Your task to perform on an android device: Open Maps and search for coffee Image 0: 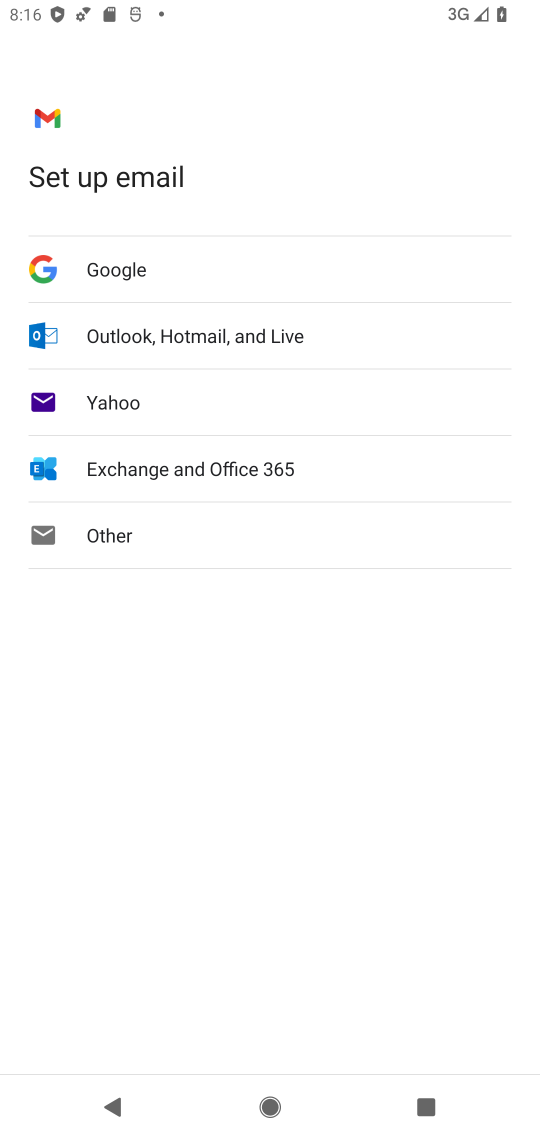
Step 0: press home button
Your task to perform on an android device: Open Maps and search for coffee Image 1: 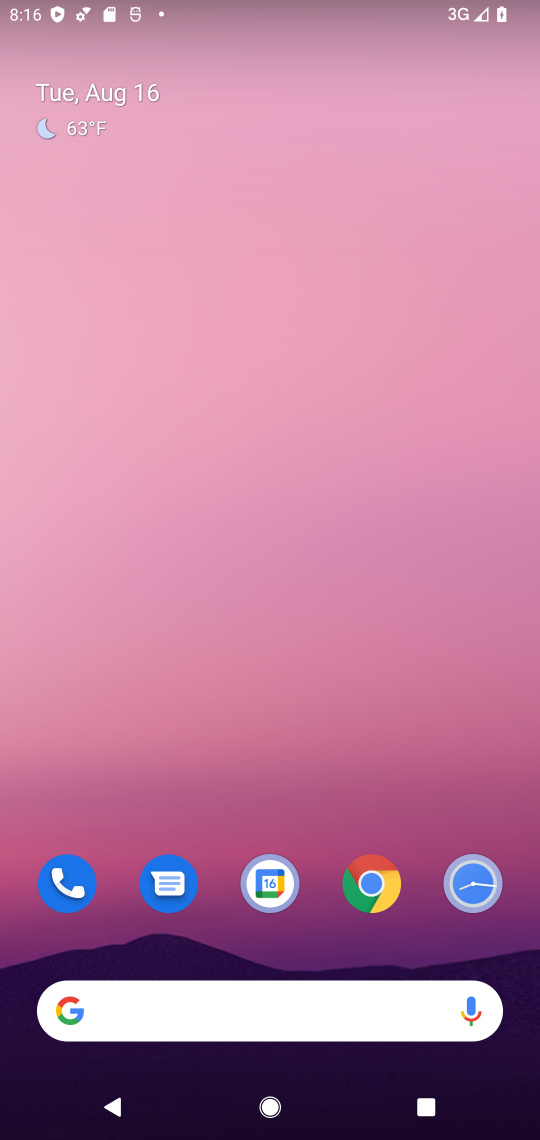
Step 1: drag from (316, 849) to (290, 298)
Your task to perform on an android device: Open Maps and search for coffee Image 2: 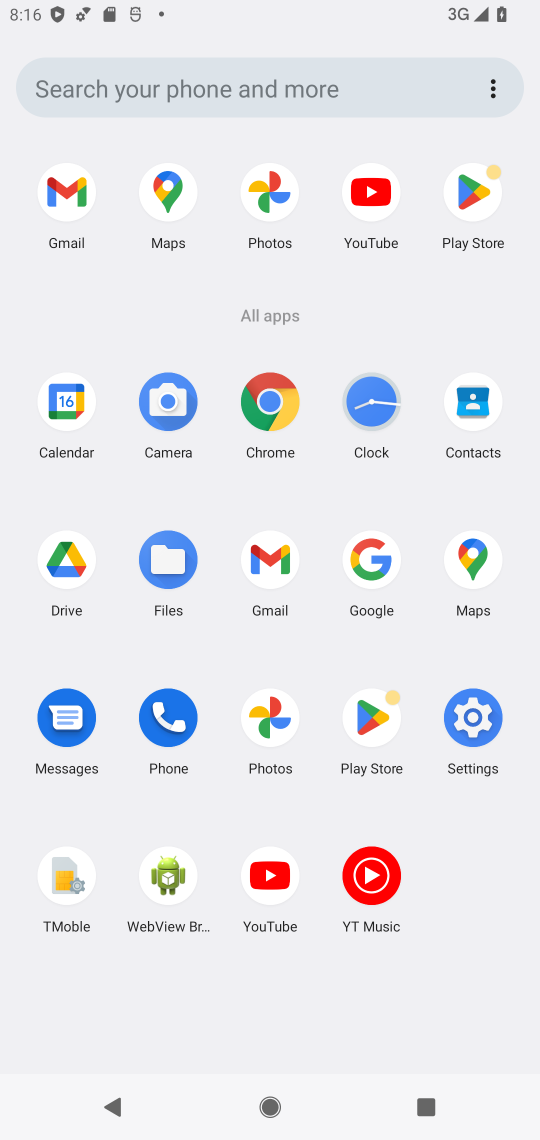
Step 2: click (459, 577)
Your task to perform on an android device: Open Maps and search for coffee Image 3: 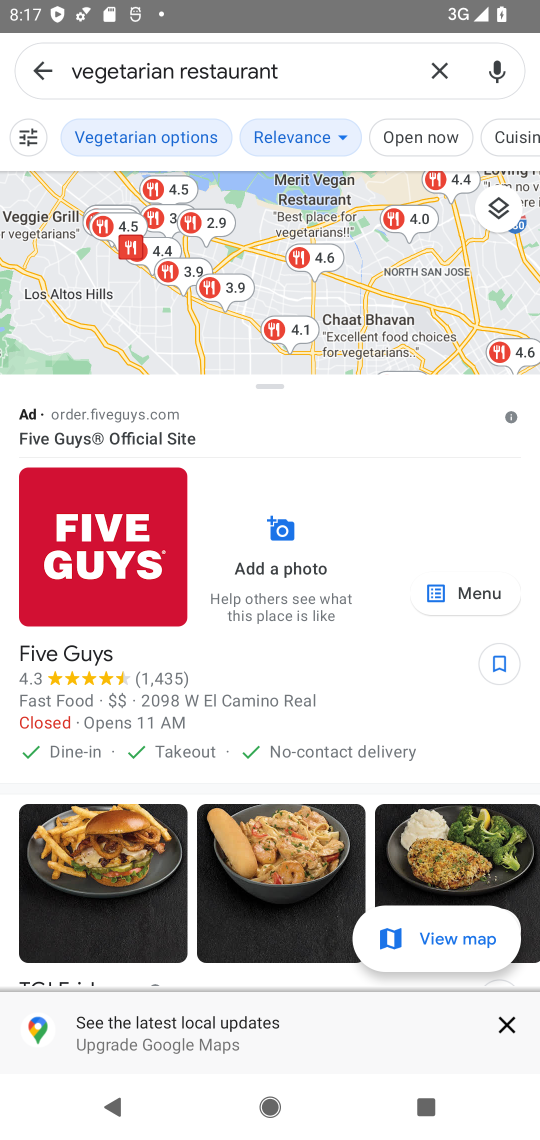
Step 3: click (435, 65)
Your task to perform on an android device: Open Maps and search for coffee Image 4: 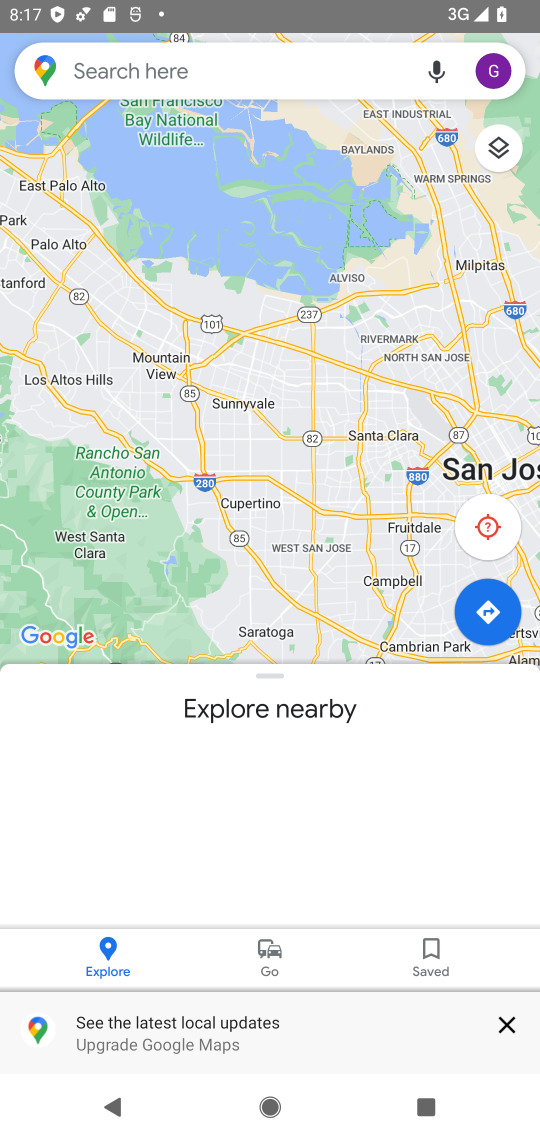
Step 4: click (266, 70)
Your task to perform on an android device: Open Maps and search for coffee Image 5: 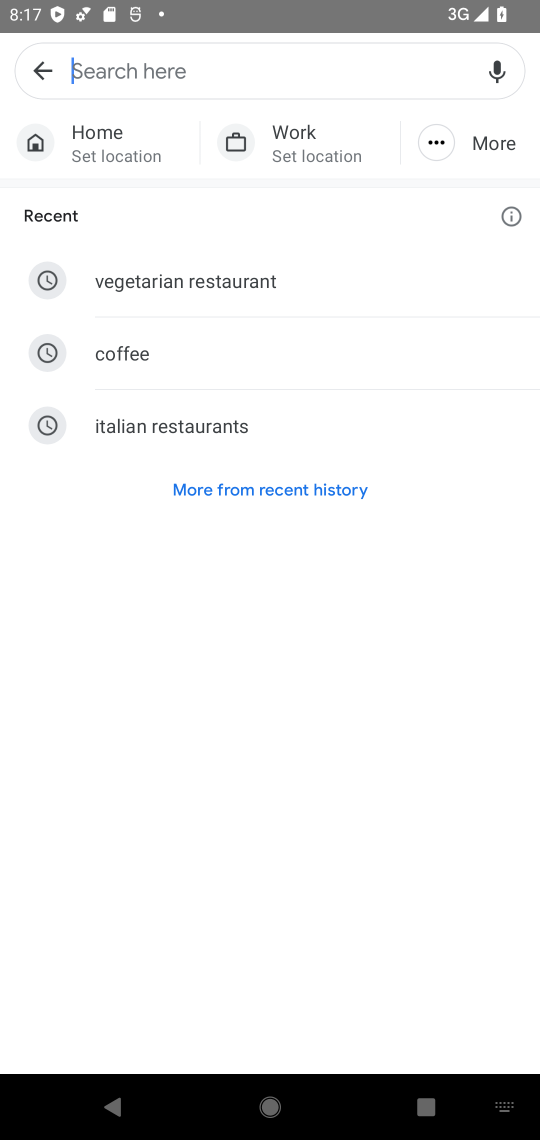
Step 5: click (124, 345)
Your task to perform on an android device: Open Maps and search for coffee Image 6: 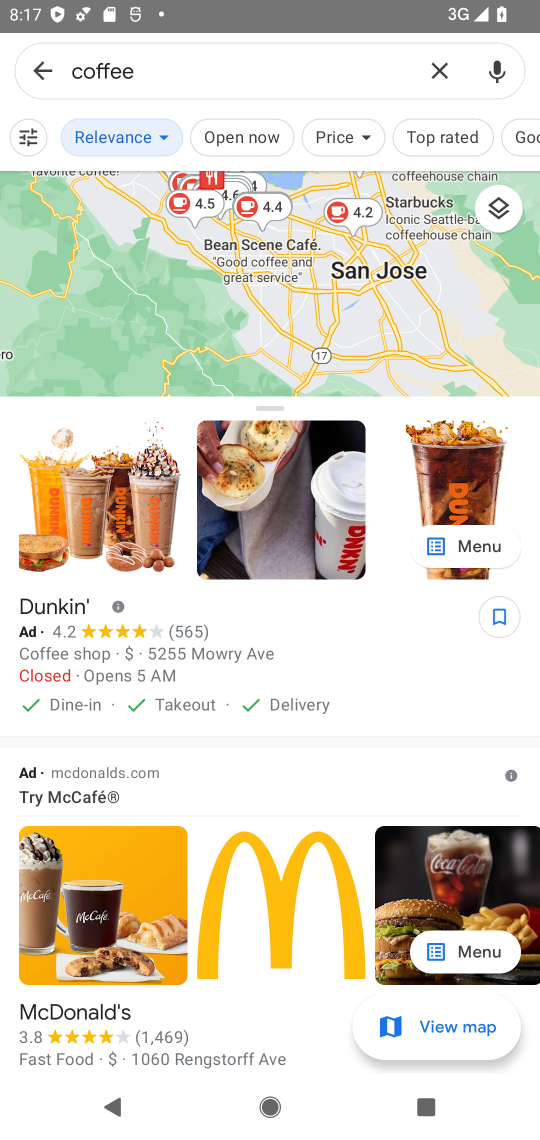
Step 6: task complete